Your task to perform on an android device: turn pop-ups on in chrome Image 0: 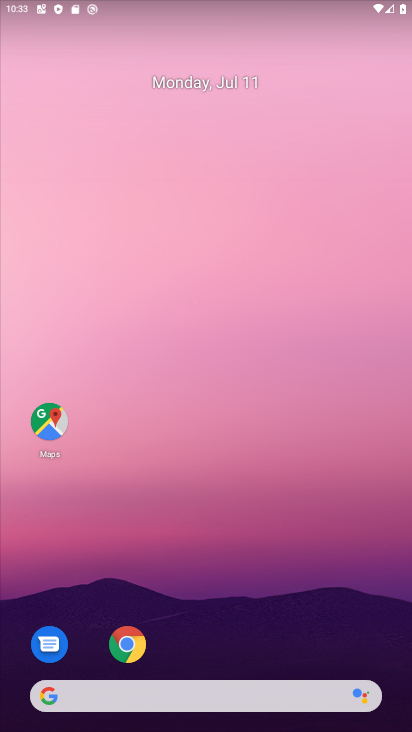
Step 0: drag from (196, 566) to (196, 9)
Your task to perform on an android device: turn pop-ups on in chrome Image 1: 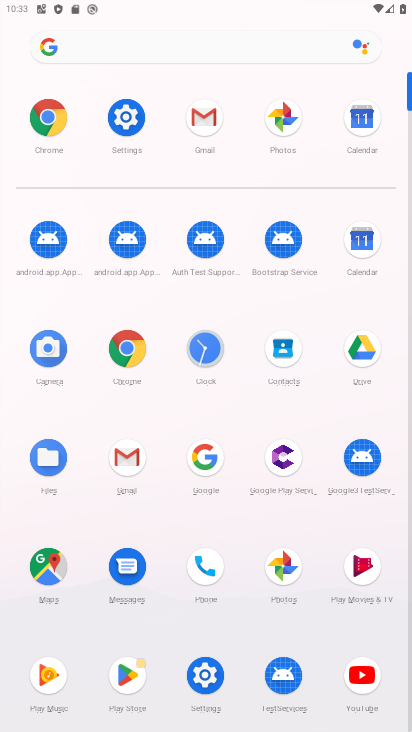
Step 1: click (131, 349)
Your task to perform on an android device: turn pop-ups on in chrome Image 2: 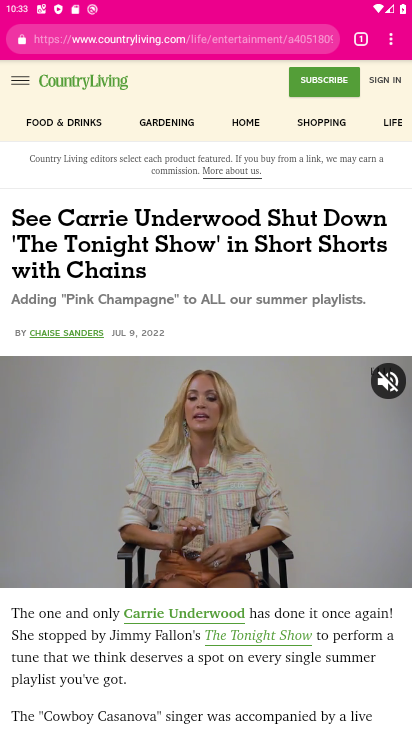
Step 2: click (382, 36)
Your task to perform on an android device: turn pop-ups on in chrome Image 3: 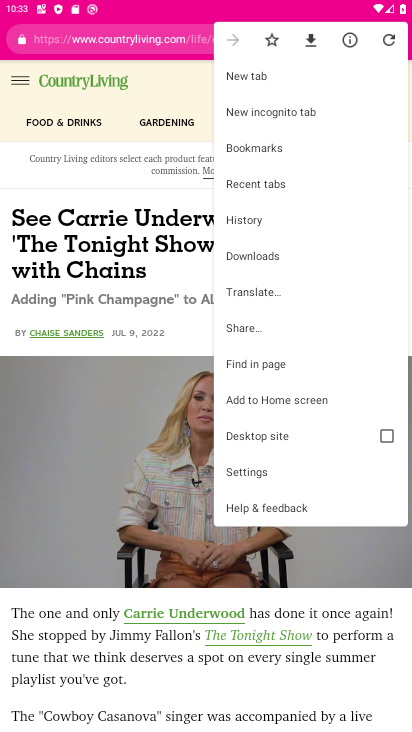
Step 3: click (249, 470)
Your task to perform on an android device: turn pop-ups on in chrome Image 4: 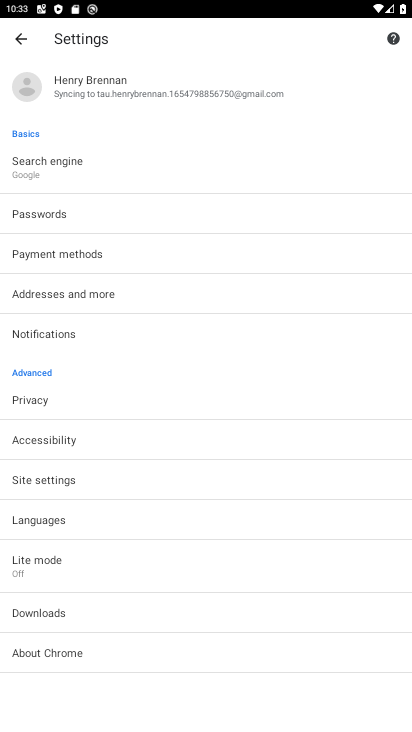
Step 4: click (70, 470)
Your task to perform on an android device: turn pop-ups on in chrome Image 5: 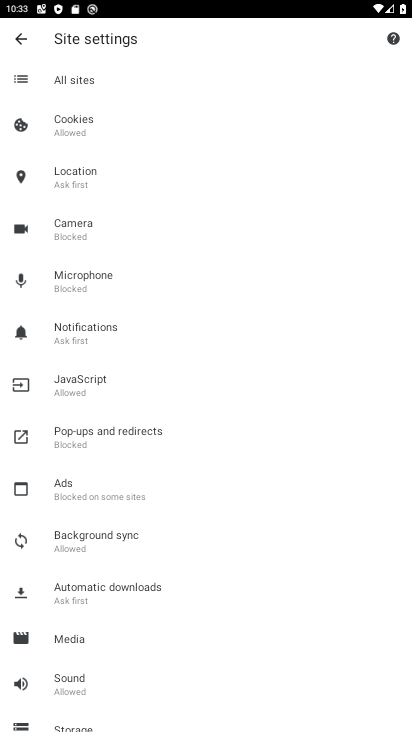
Step 5: click (99, 432)
Your task to perform on an android device: turn pop-ups on in chrome Image 6: 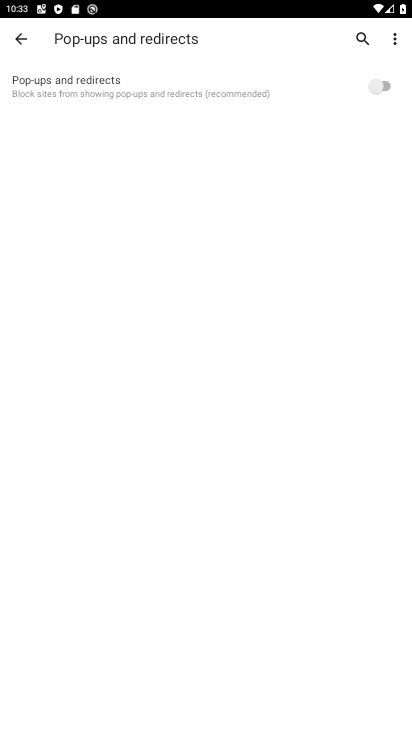
Step 6: click (391, 81)
Your task to perform on an android device: turn pop-ups on in chrome Image 7: 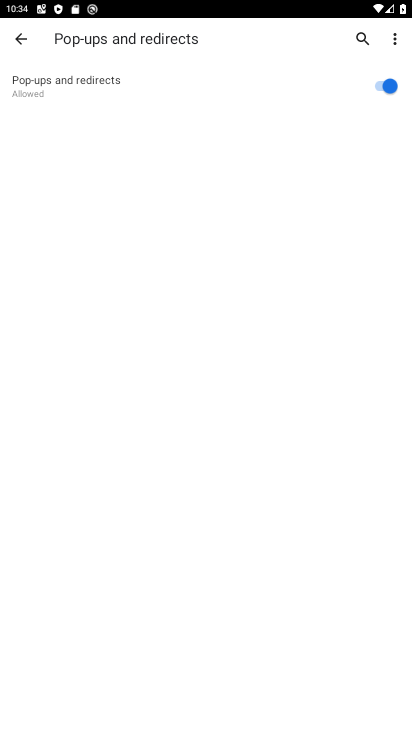
Step 7: task complete